Your task to perform on an android device: Go to sound settings Image 0: 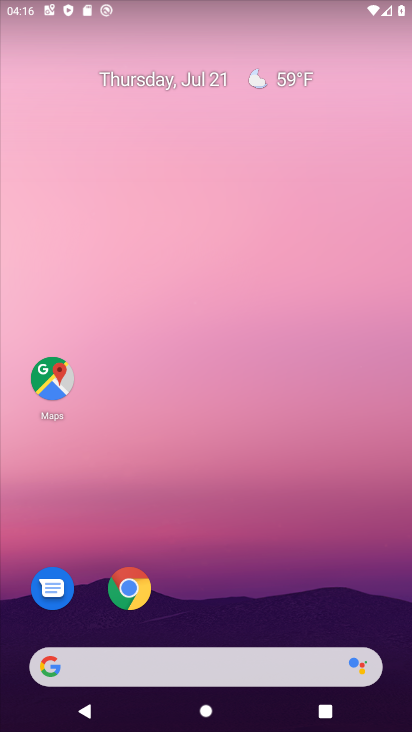
Step 0: drag from (205, 588) to (208, 225)
Your task to perform on an android device: Go to sound settings Image 1: 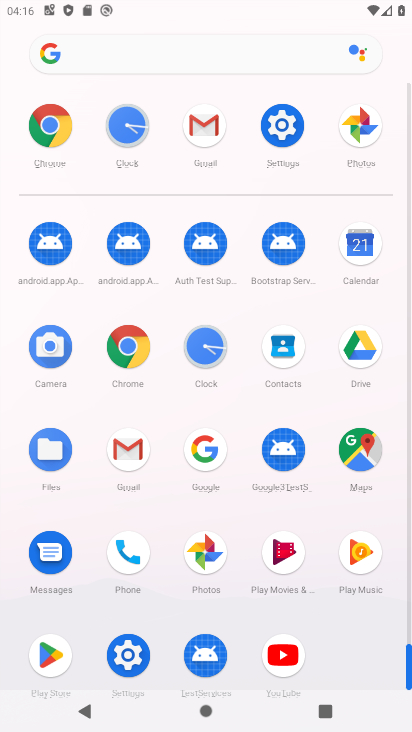
Step 1: click (136, 650)
Your task to perform on an android device: Go to sound settings Image 2: 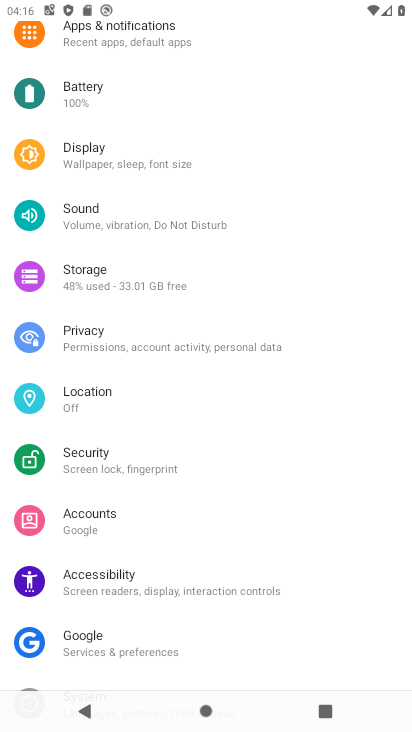
Step 2: click (105, 218)
Your task to perform on an android device: Go to sound settings Image 3: 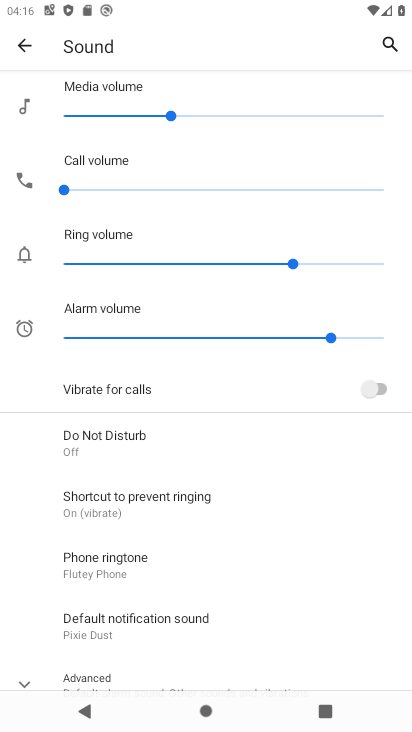
Step 3: task complete